Your task to perform on an android device: Go to ESPN.com Image 0: 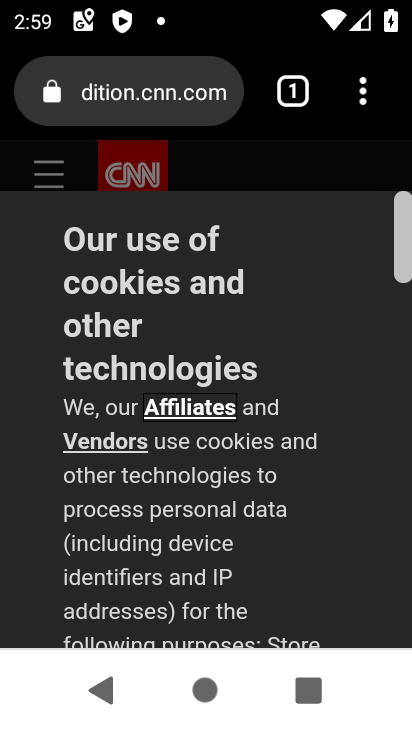
Step 0: click (188, 103)
Your task to perform on an android device: Go to ESPN.com Image 1: 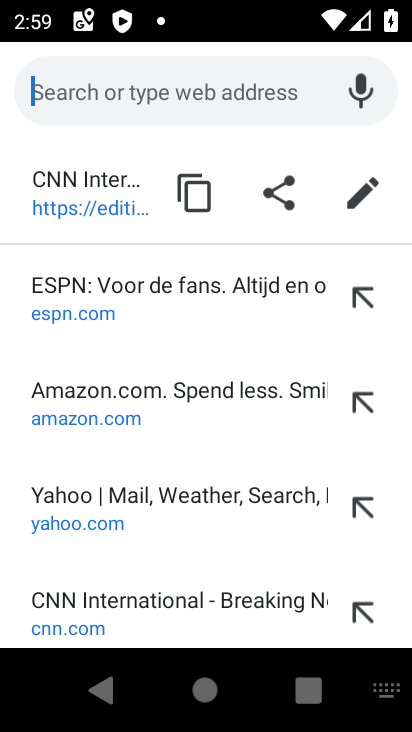
Step 1: click (127, 317)
Your task to perform on an android device: Go to ESPN.com Image 2: 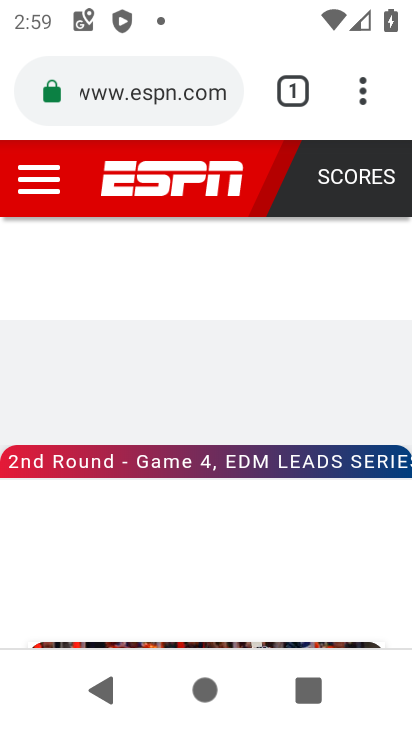
Step 2: task complete